Your task to perform on an android device: change the clock style Image 0: 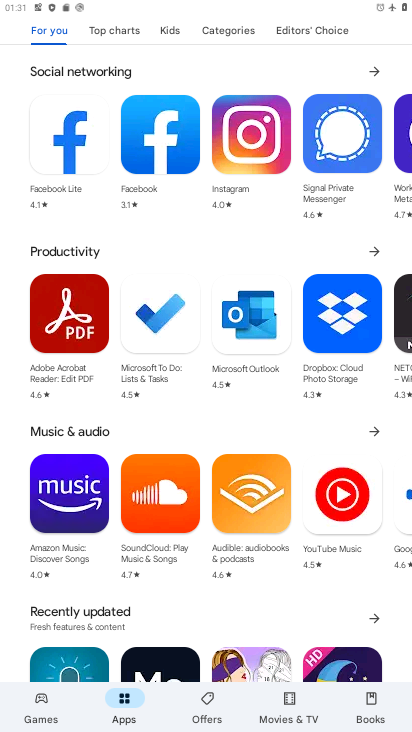
Step 0: press home button
Your task to perform on an android device: change the clock style Image 1: 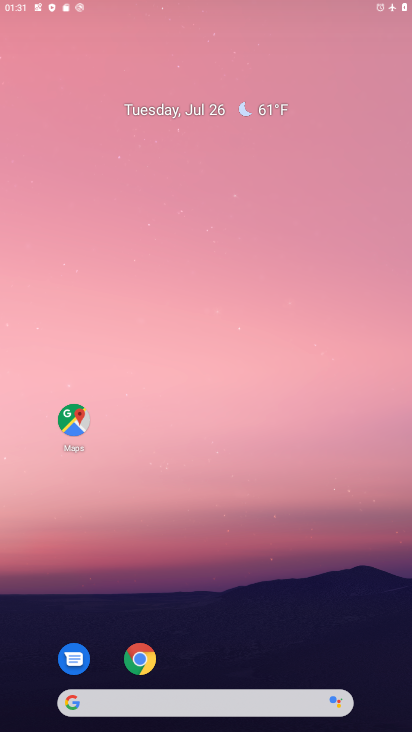
Step 1: drag from (196, 647) to (112, 100)
Your task to perform on an android device: change the clock style Image 2: 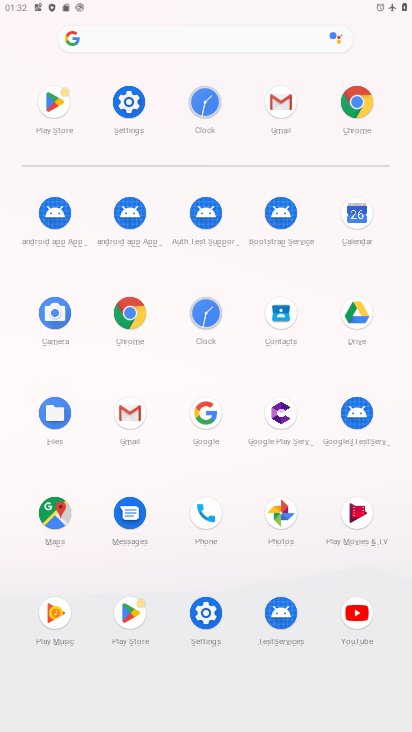
Step 2: click (196, 321)
Your task to perform on an android device: change the clock style Image 3: 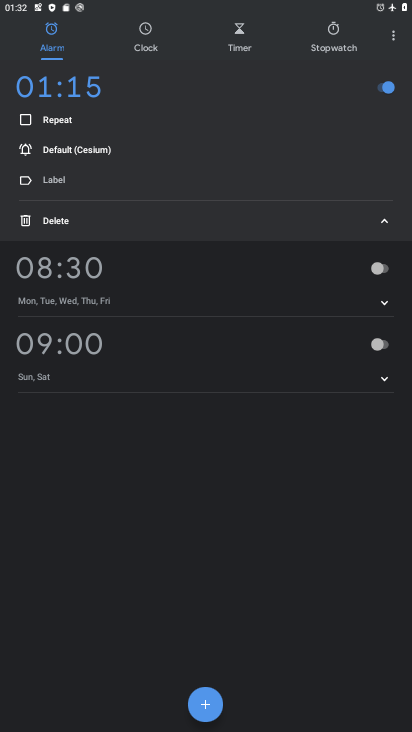
Step 3: click (398, 37)
Your task to perform on an android device: change the clock style Image 4: 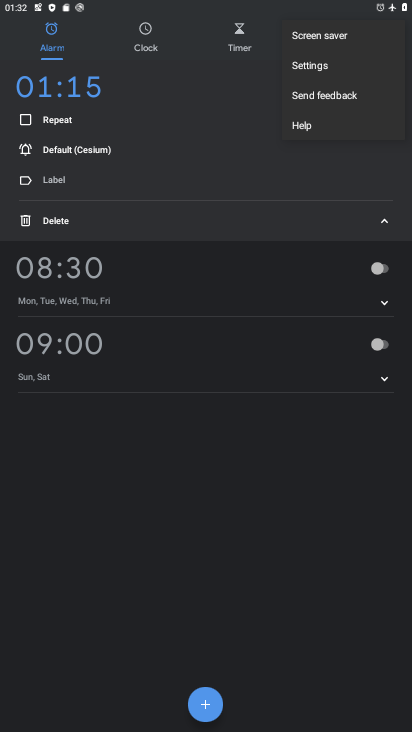
Step 4: click (337, 63)
Your task to perform on an android device: change the clock style Image 5: 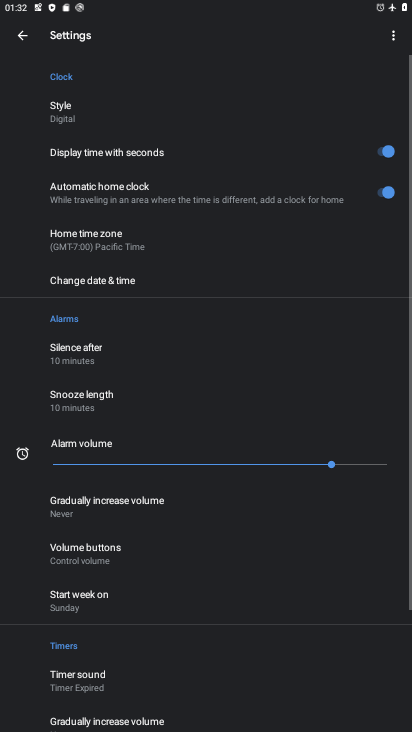
Step 5: click (63, 111)
Your task to perform on an android device: change the clock style Image 6: 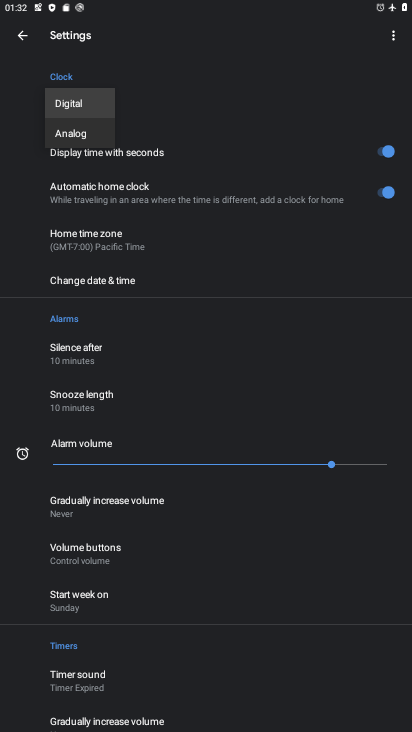
Step 6: click (83, 128)
Your task to perform on an android device: change the clock style Image 7: 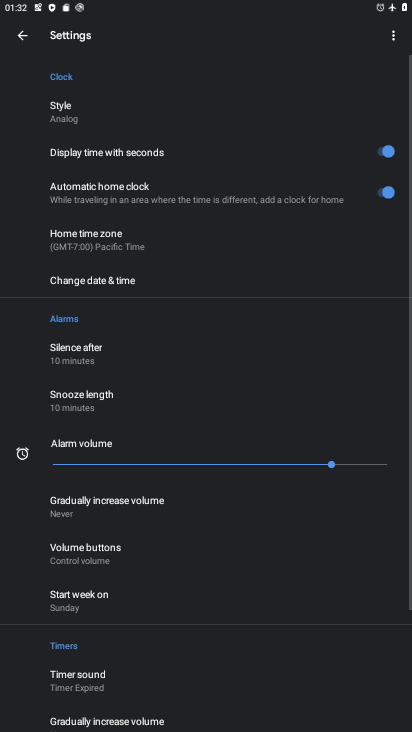
Step 7: task complete